Your task to perform on an android device: Is it going to rain today? Image 0: 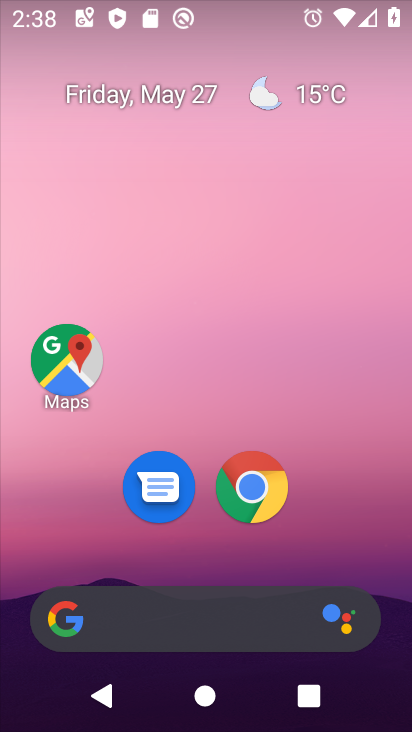
Step 0: click (223, 599)
Your task to perform on an android device: Is it going to rain today? Image 1: 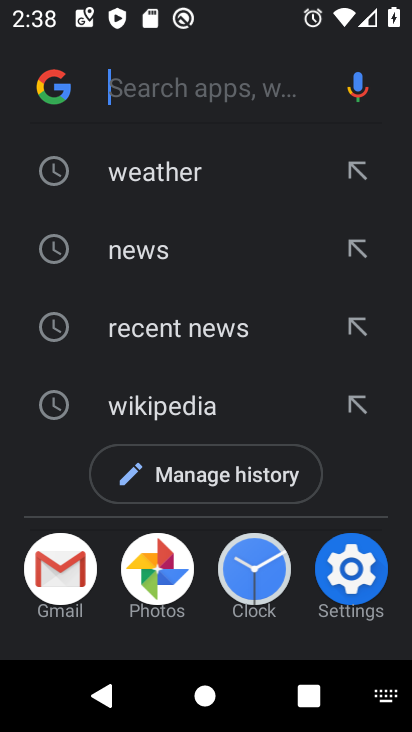
Step 1: click (197, 194)
Your task to perform on an android device: Is it going to rain today? Image 2: 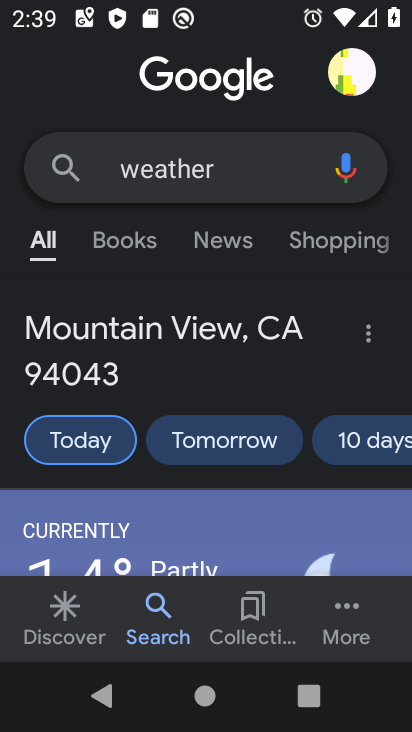
Step 2: task complete